Your task to perform on an android device: Show me popular games on the Play Store Image 0: 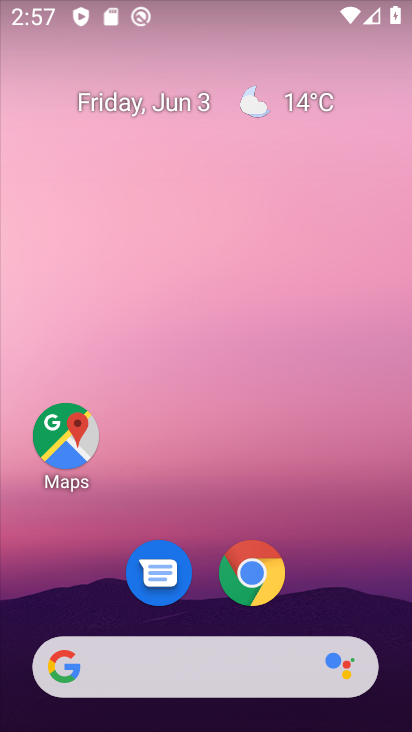
Step 0: drag from (232, 662) to (266, 19)
Your task to perform on an android device: Show me popular games on the Play Store Image 1: 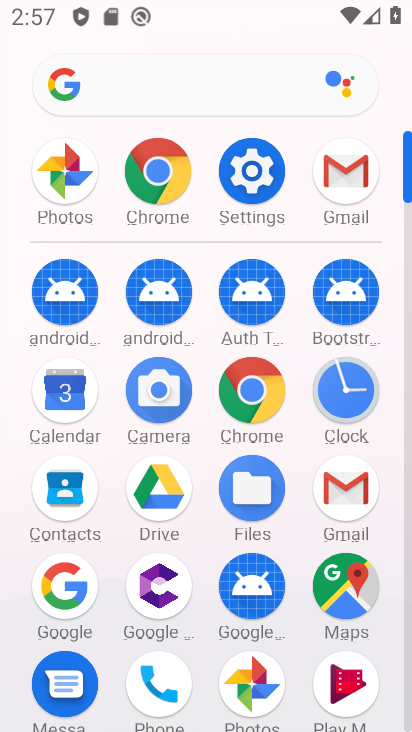
Step 1: drag from (289, 663) to (271, 302)
Your task to perform on an android device: Show me popular games on the Play Store Image 2: 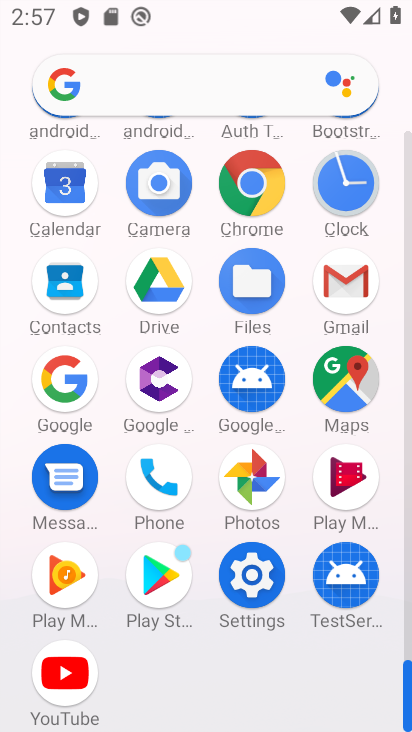
Step 2: click (166, 584)
Your task to perform on an android device: Show me popular games on the Play Store Image 3: 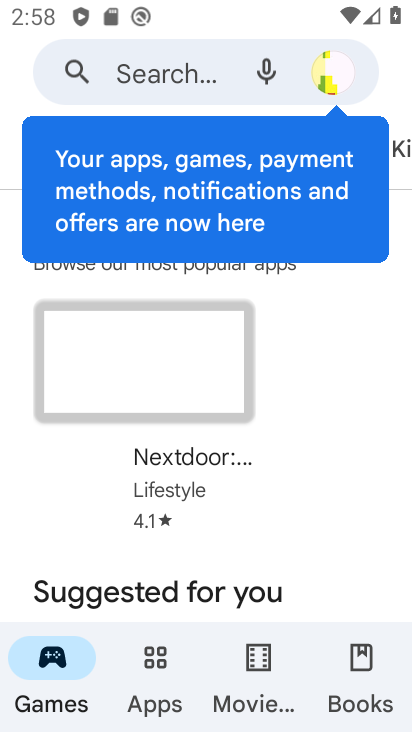
Step 3: click (155, 664)
Your task to perform on an android device: Show me popular games on the Play Store Image 4: 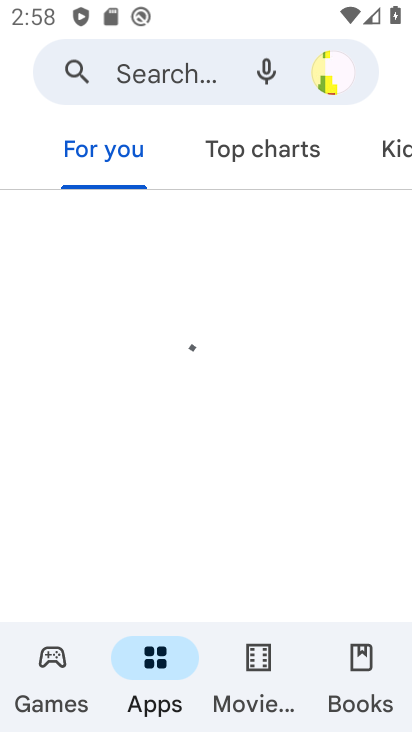
Step 4: click (48, 674)
Your task to perform on an android device: Show me popular games on the Play Store Image 5: 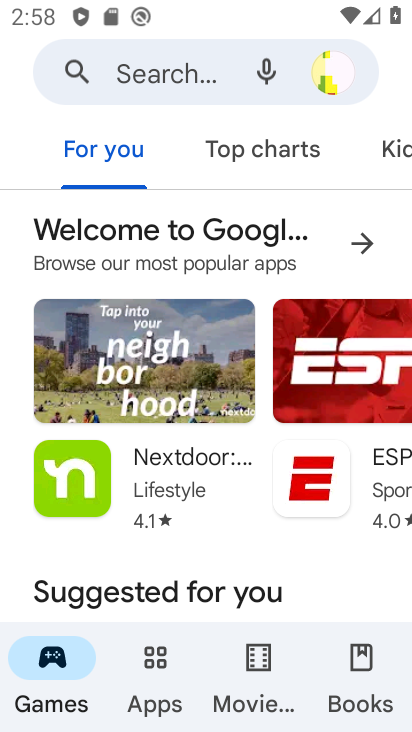
Step 5: drag from (227, 521) to (242, 18)
Your task to perform on an android device: Show me popular games on the Play Store Image 6: 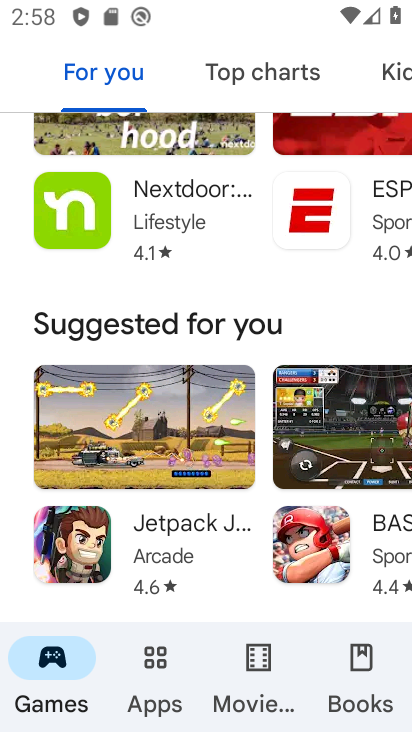
Step 6: drag from (236, 524) to (234, 172)
Your task to perform on an android device: Show me popular games on the Play Store Image 7: 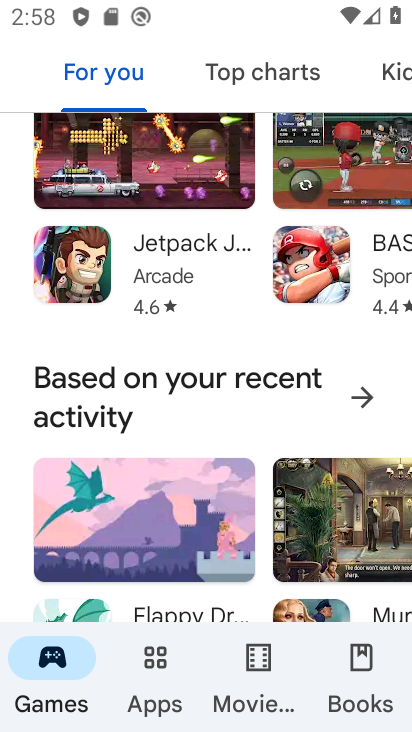
Step 7: drag from (273, 395) to (247, 112)
Your task to perform on an android device: Show me popular games on the Play Store Image 8: 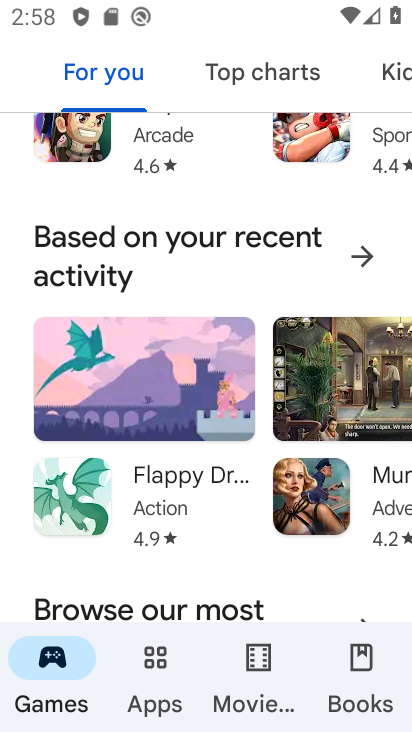
Step 8: drag from (263, 534) to (295, 151)
Your task to perform on an android device: Show me popular games on the Play Store Image 9: 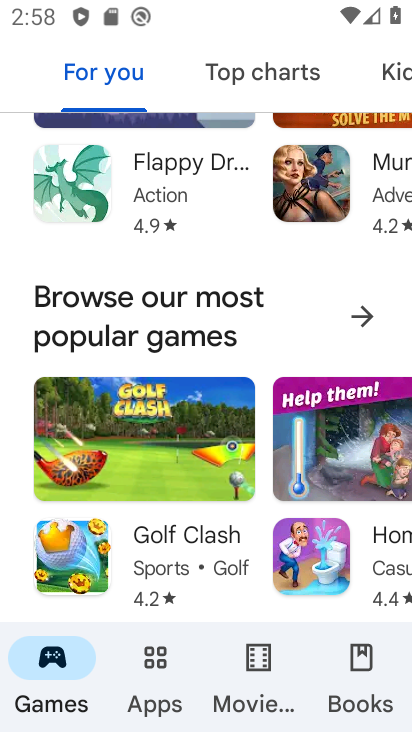
Step 9: click (359, 320)
Your task to perform on an android device: Show me popular games on the Play Store Image 10: 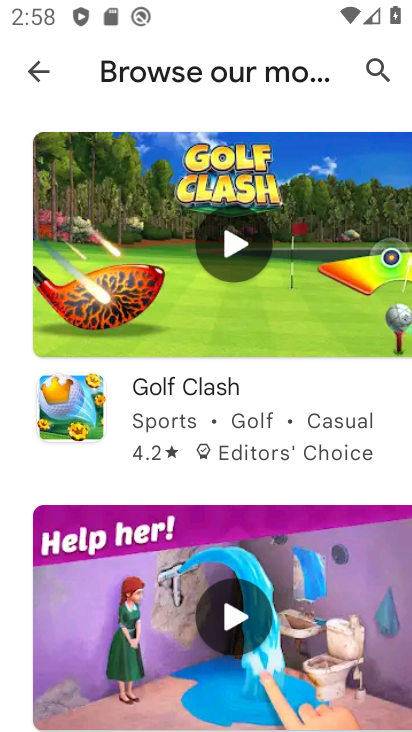
Step 10: task complete